Your task to perform on an android device: see tabs open on other devices in the chrome app Image 0: 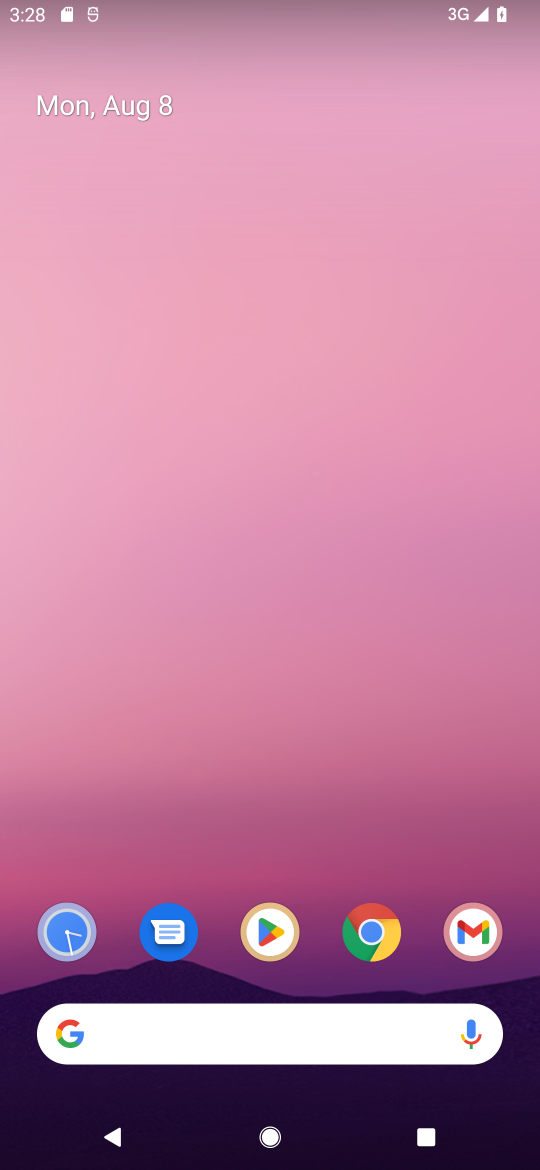
Step 0: drag from (353, 924) to (141, 111)
Your task to perform on an android device: see tabs open on other devices in the chrome app Image 1: 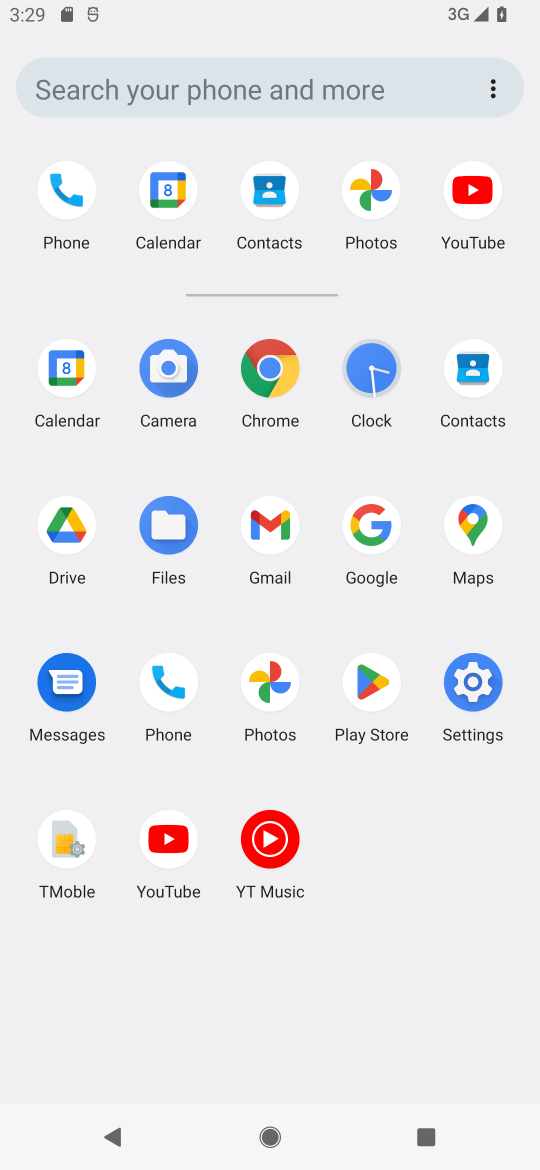
Step 1: click (274, 358)
Your task to perform on an android device: see tabs open on other devices in the chrome app Image 2: 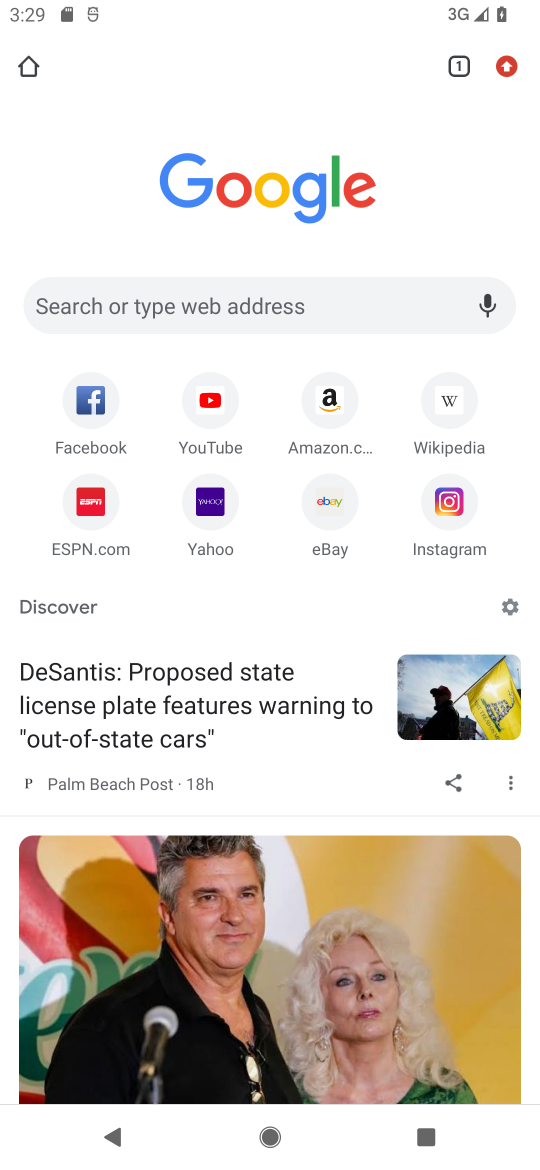
Step 2: drag from (502, 56) to (368, 511)
Your task to perform on an android device: see tabs open on other devices in the chrome app Image 3: 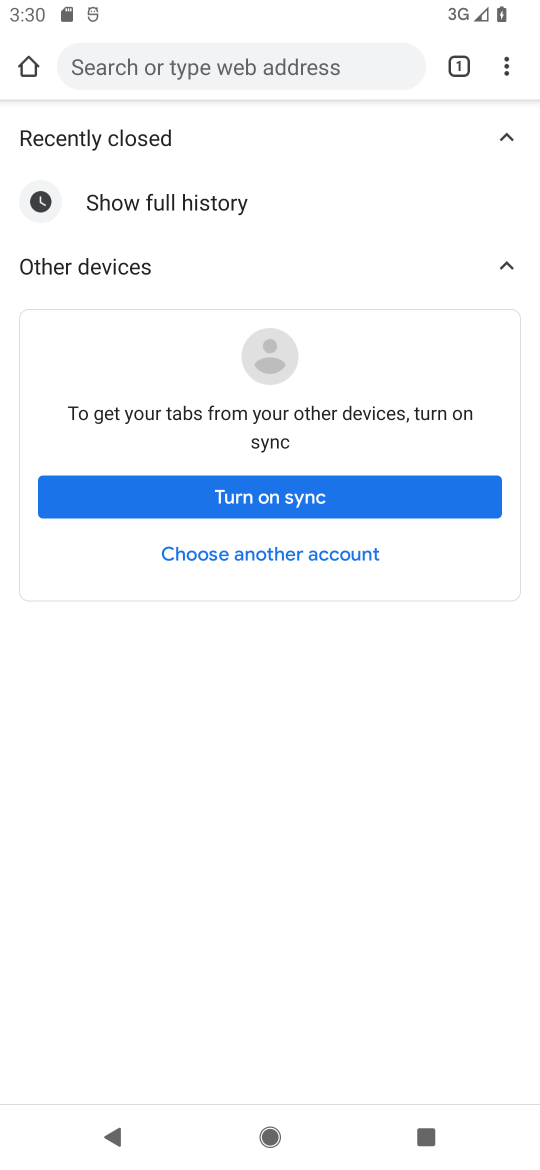
Step 3: click (316, 482)
Your task to perform on an android device: see tabs open on other devices in the chrome app Image 4: 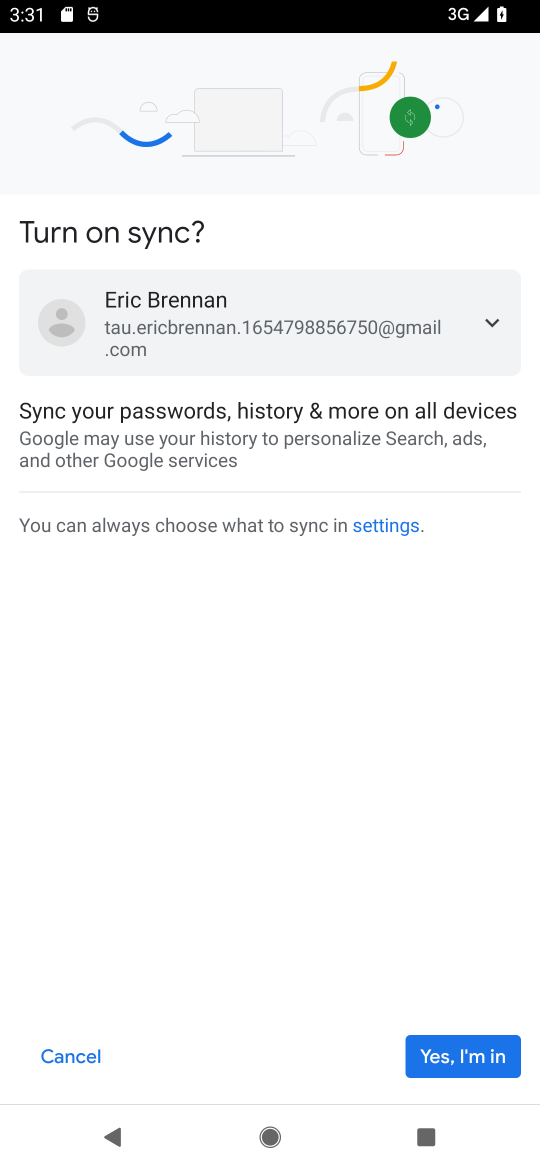
Step 4: drag from (486, 1018) to (502, 1068)
Your task to perform on an android device: see tabs open on other devices in the chrome app Image 5: 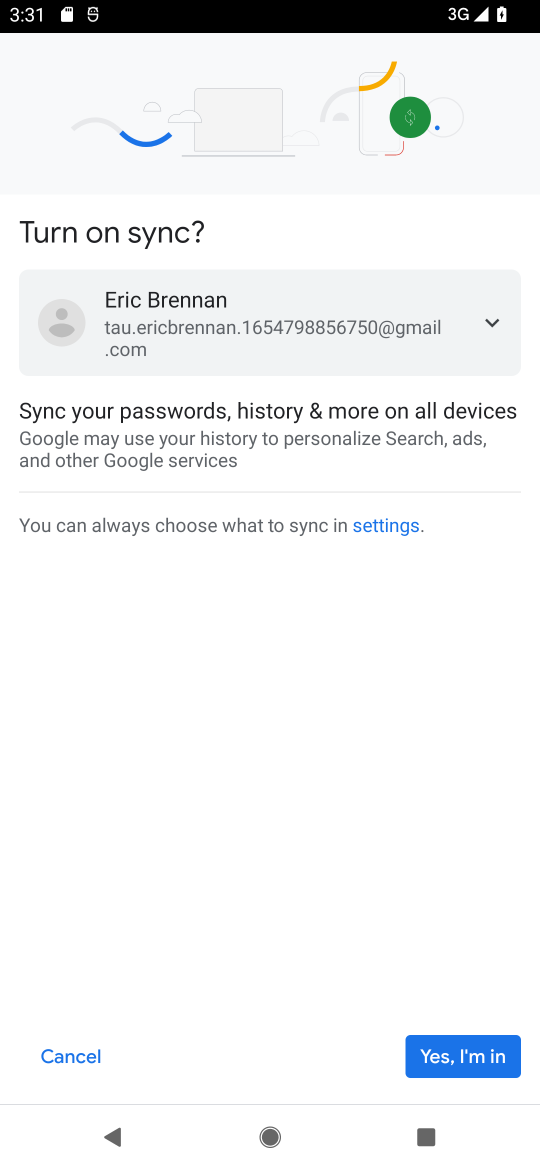
Step 5: click (426, 1045)
Your task to perform on an android device: see tabs open on other devices in the chrome app Image 6: 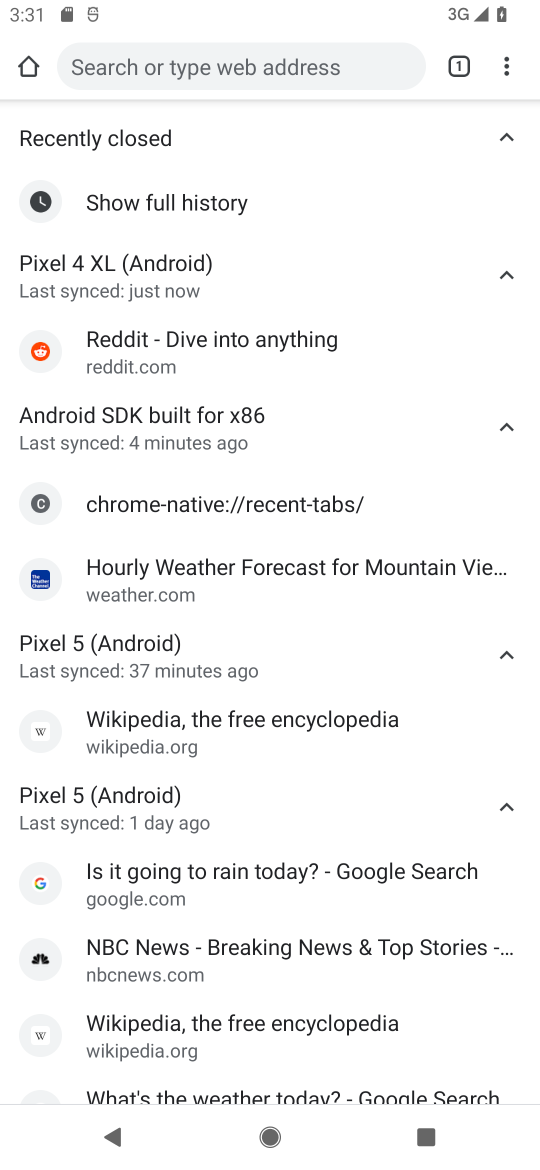
Step 6: task complete